Your task to perform on an android device: turn on data saver in the chrome app Image 0: 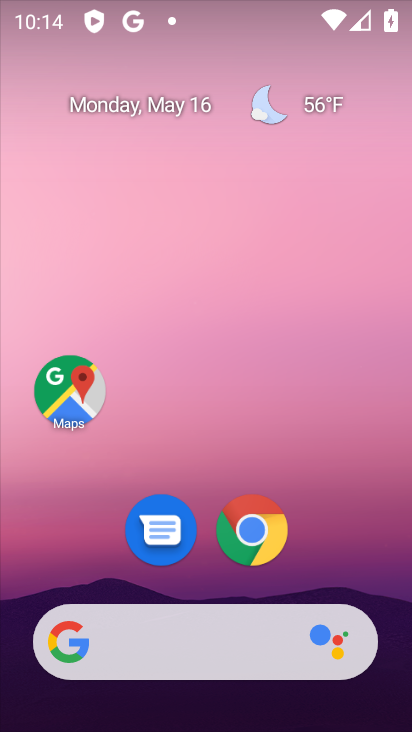
Step 0: drag from (388, 570) to (373, 105)
Your task to perform on an android device: turn on data saver in the chrome app Image 1: 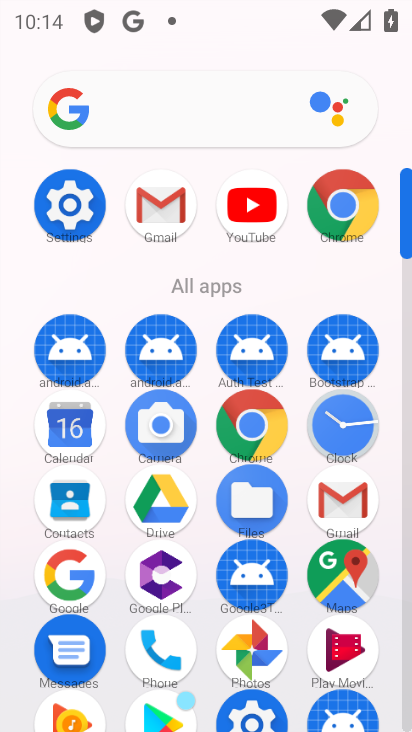
Step 1: click (354, 223)
Your task to perform on an android device: turn on data saver in the chrome app Image 2: 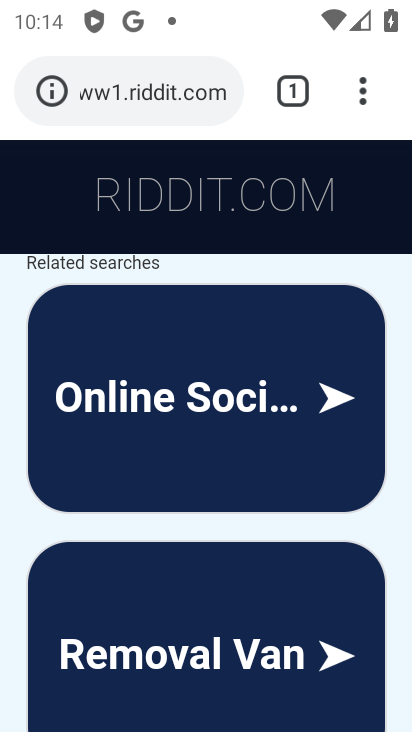
Step 2: click (365, 98)
Your task to perform on an android device: turn on data saver in the chrome app Image 3: 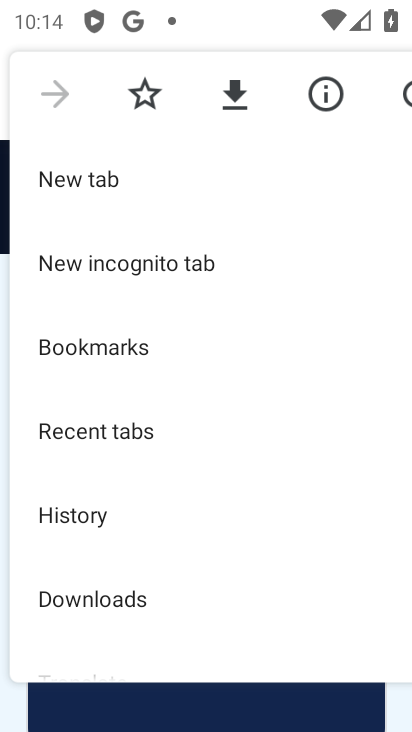
Step 3: drag from (296, 610) to (326, 388)
Your task to perform on an android device: turn on data saver in the chrome app Image 4: 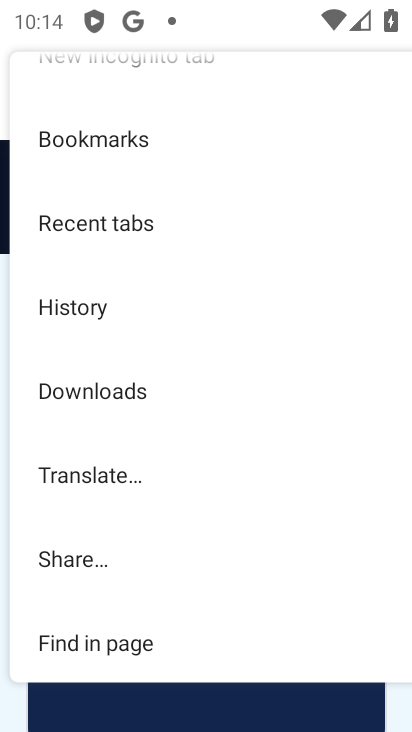
Step 4: drag from (271, 563) to (278, 401)
Your task to perform on an android device: turn on data saver in the chrome app Image 5: 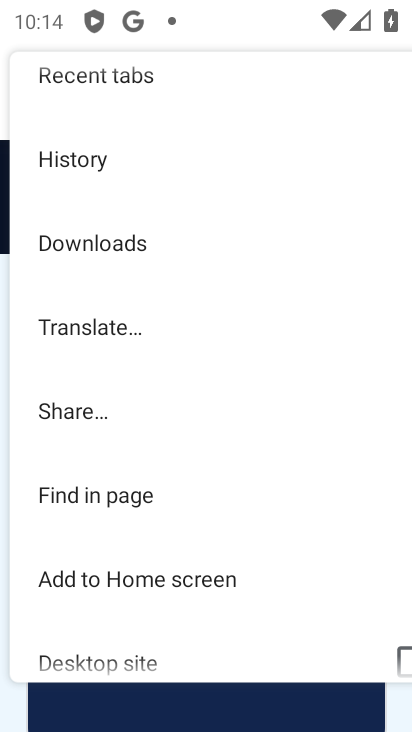
Step 5: drag from (273, 563) to (303, 347)
Your task to perform on an android device: turn on data saver in the chrome app Image 6: 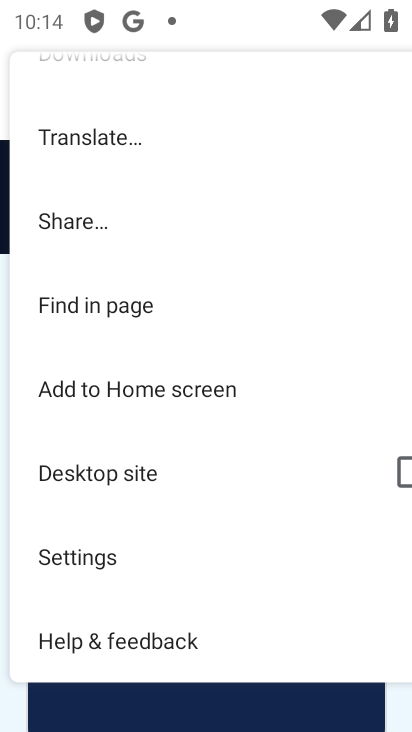
Step 6: drag from (278, 540) to (280, 361)
Your task to perform on an android device: turn on data saver in the chrome app Image 7: 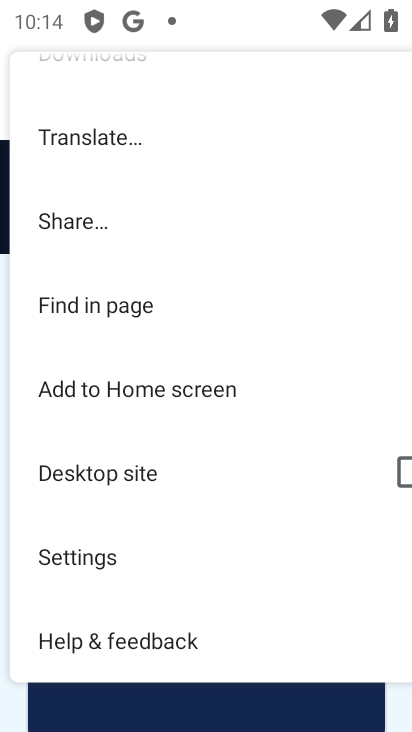
Step 7: click (109, 563)
Your task to perform on an android device: turn on data saver in the chrome app Image 8: 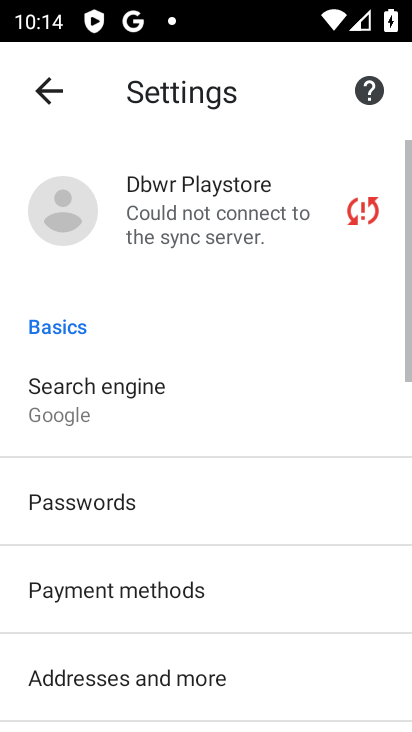
Step 8: drag from (279, 591) to (315, 434)
Your task to perform on an android device: turn on data saver in the chrome app Image 9: 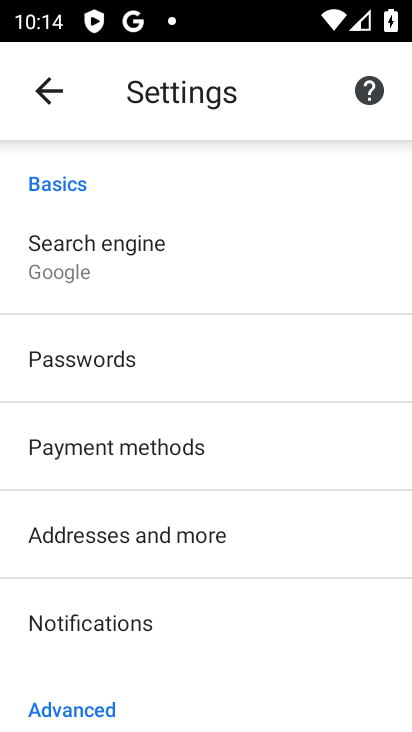
Step 9: drag from (314, 630) to (310, 441)
Your task to perform on an android device: turn on data saver in the chrome app Image 10: 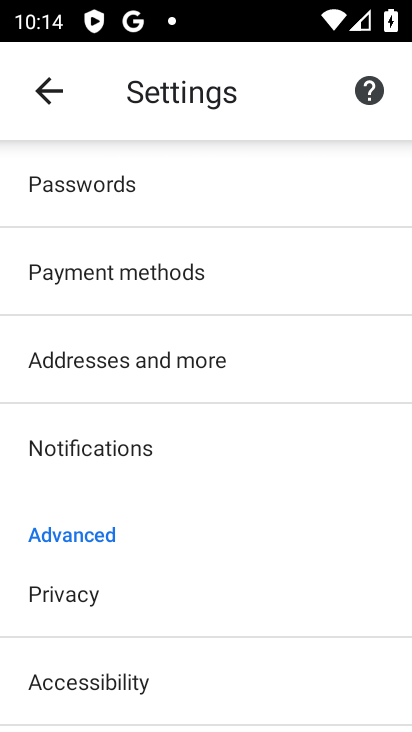
Step 10: drag from (320, 635) to (339, 471)
Your task to perform on an android device: turn on data saver in the chrome app Image 11: 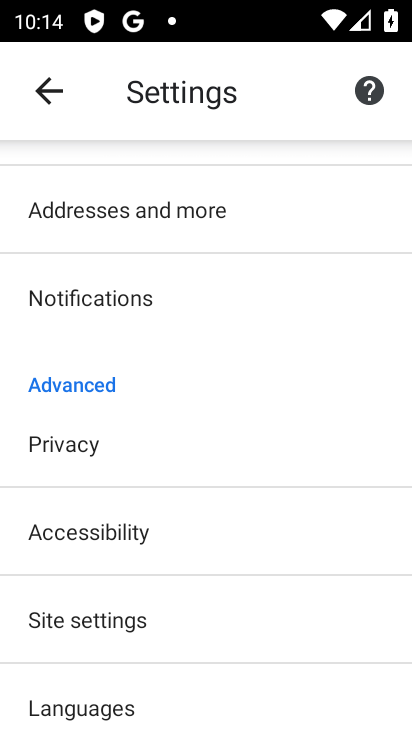
Step 11: drag from (286, 648) to (308, 470)
Your task to perform on an android device: turn on data saver in the chrome app Image 12: 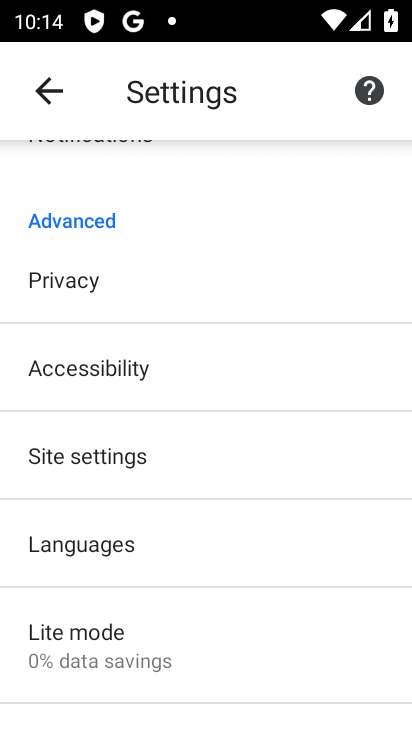
Step 12: drag from (294, 635) to (290, 435)
Your task to perform on an android device: turn on data saver in the chrome app Image 13: 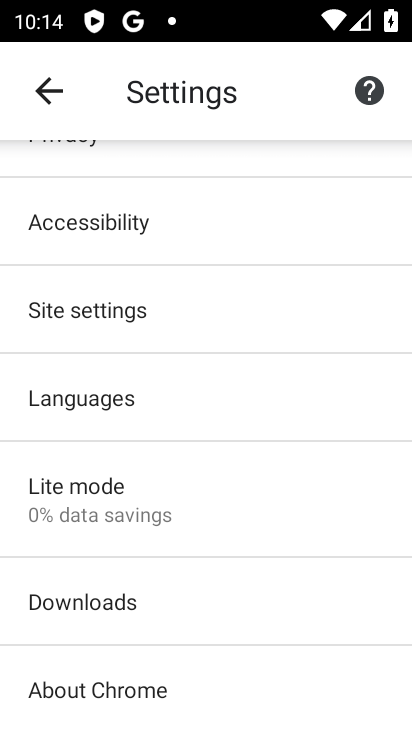
Step 13: click (214, 519)
Your task to perform on an android device: turn on data saver in the chrome app Image 14: 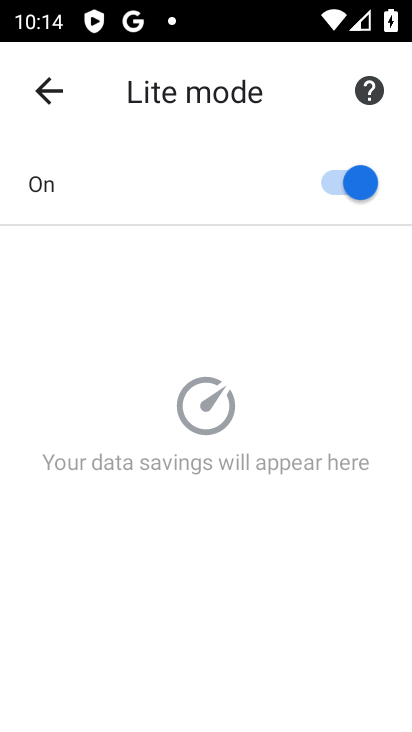
Step 14: task complete